Your task to perform on an android device: open the mobile data screen to see how much data has been used Image 0: 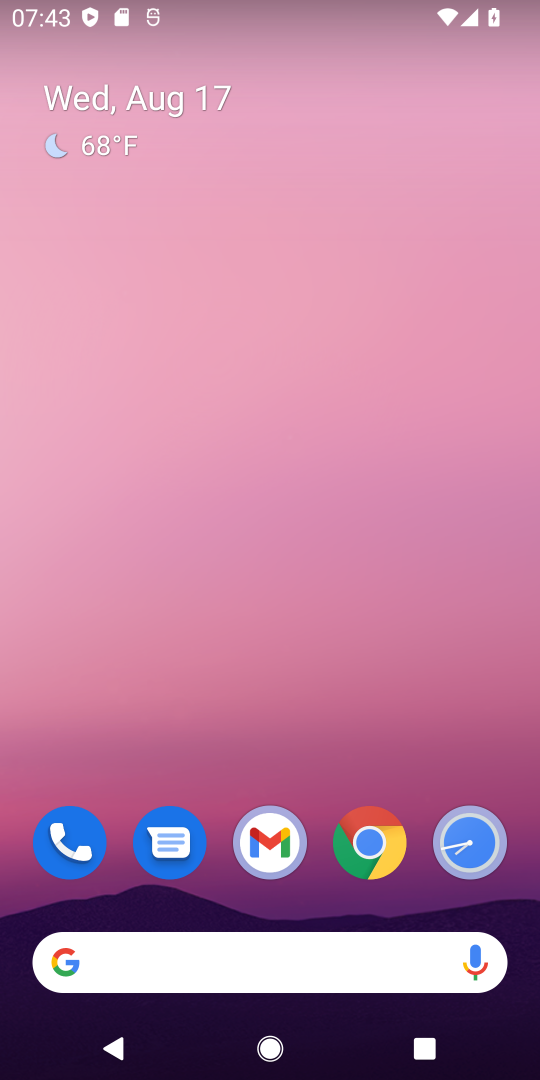
Step 0: drag from (260, 570) to (307, 27)
Your task to perform on an android device: open the mobile data screen to see how much data has been used Image 1: 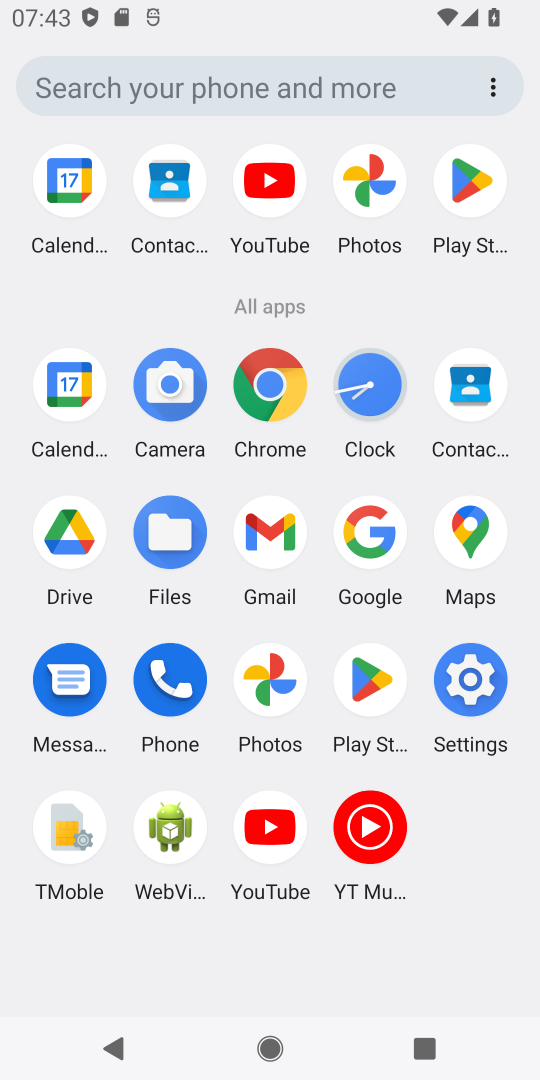
Step 1: click (476, 681)
Your task to perform on an android device: open the mobile data screen to see how much data has been used Image 2: 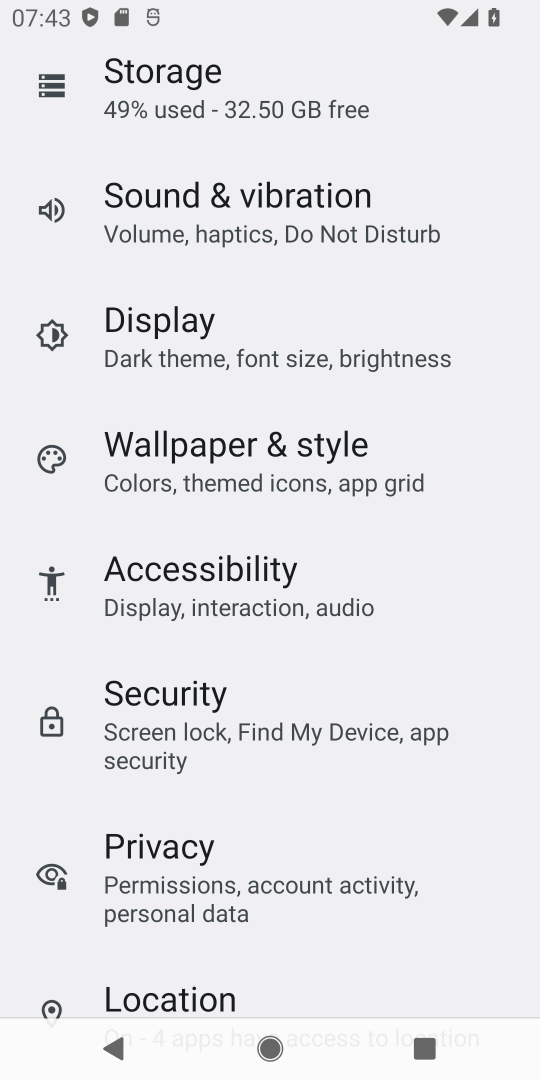
Step 2: drag from (300, 335) to (419, 937)
Your task to perform on an android device: open the mobile data screen to see how much data has been used Image 3: 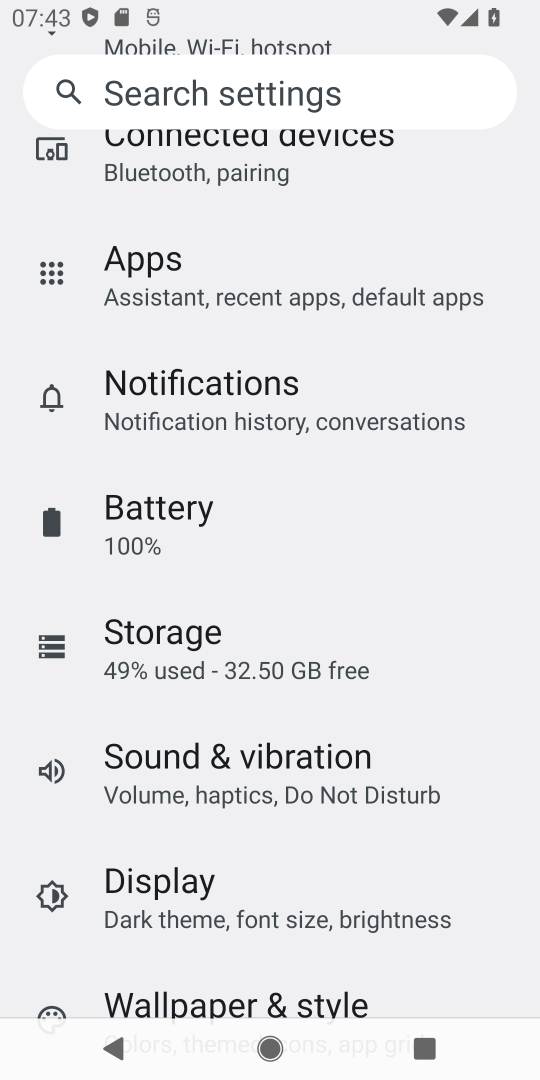
Step 3: drag from (255, 236) to (335, 894)
Your task to perform on an android device: open the mobile data screen to see how much data has been used Image 4: 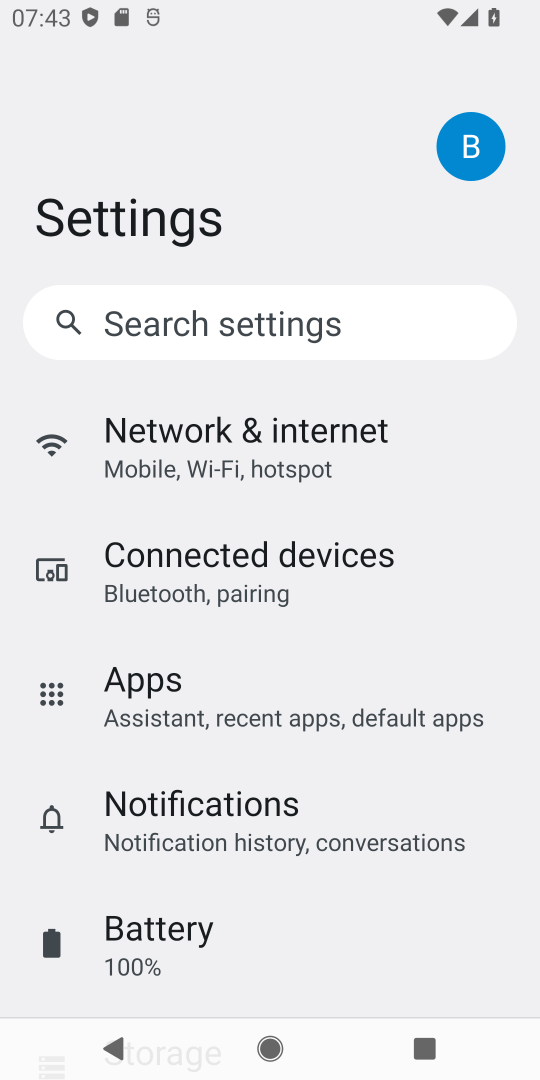
Step 4: click (279, 429)
Your task to perform on an android device: open the mobile data screen to see how much data has been used Image 5: 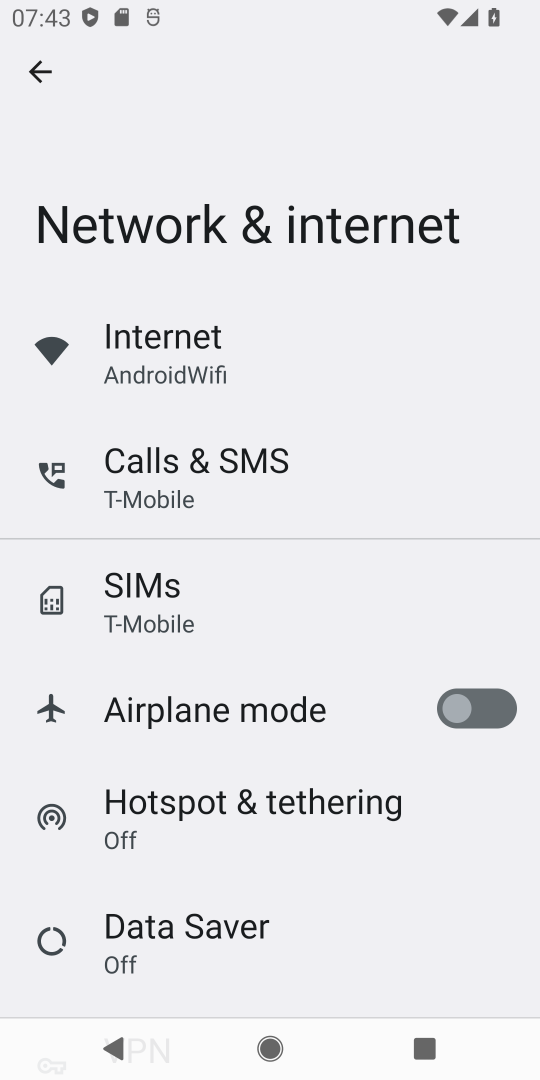
Step 5: click (152, 590)
Your task to perform on an android device: open the mobile data screen to see how much data has been used Image 6: 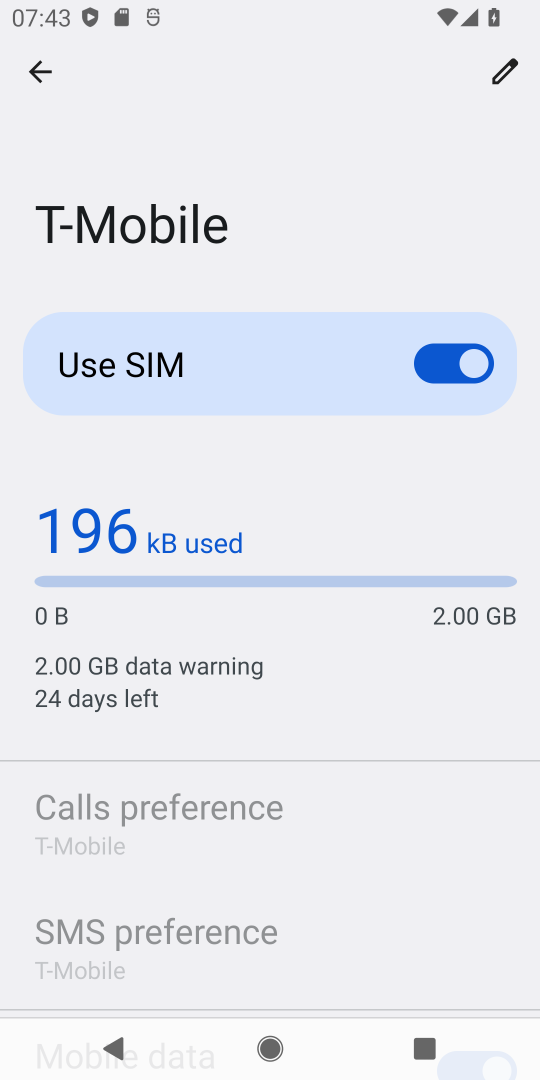
Step 6: task complete